Your task to perform on an android device: turn off data saver in the chrome app Image 0: 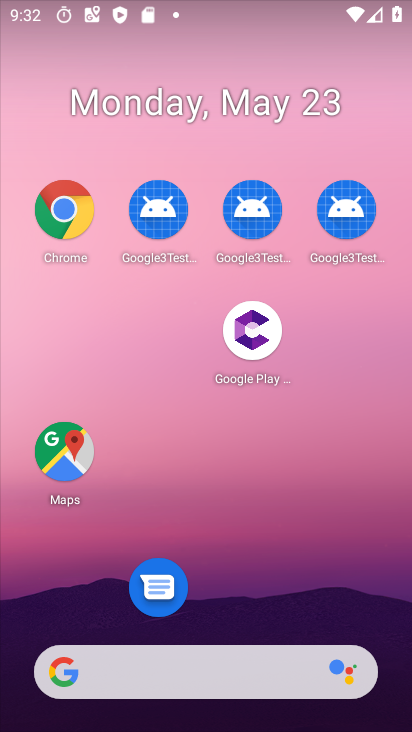
Step 0: click (75, 216)
Your task to perform on an android device: turn off data saver in the chrome app Image 1: 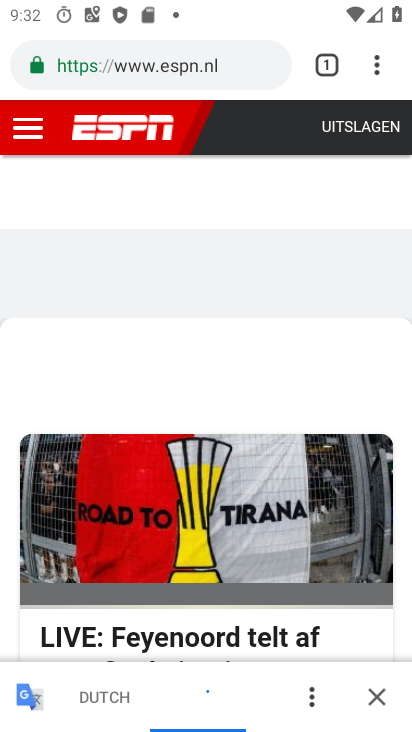
Step 1: click (389, 67)
Your task to perform on an android device: turn off data saver in the chrome app Image 2: 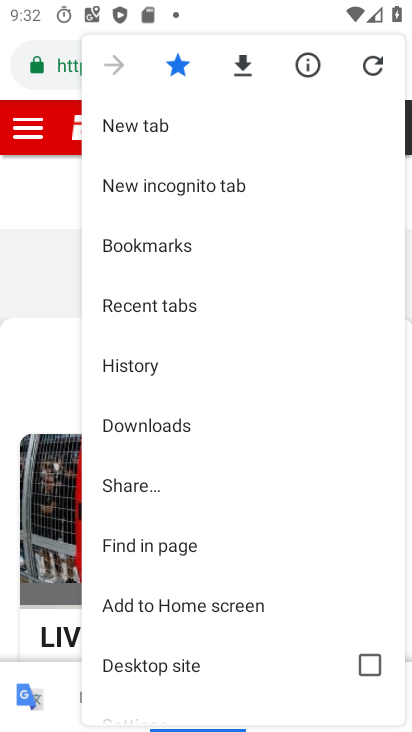
Step 2: drag from (169, 607) to (203, 261)
Your task to perform on an android device: turn off data saver in the chrome app Image 3: 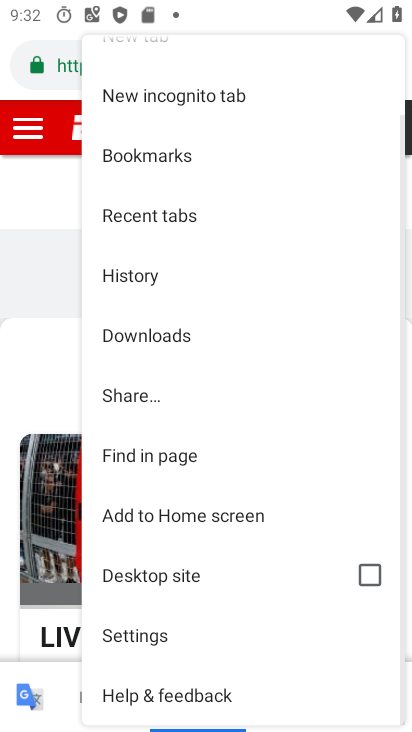
Step 3: click (152, 628)
Your task to perform on an android device: turn off data saver in the chrome app Image 4: 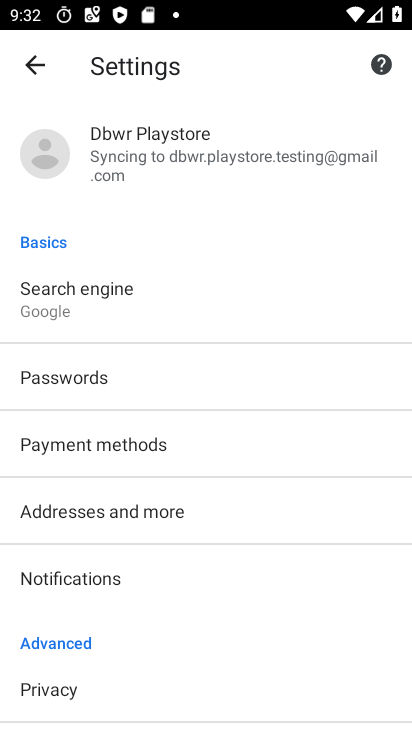
Step 4: drag from (190, 674) to (179, 155)
Your task to perform on an android device: turn off data saver in the chrome app Image 5: 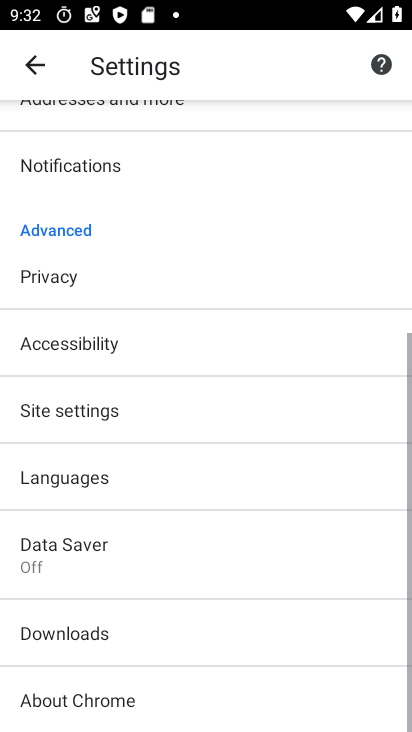
Step 5: click (99, 547)
Your task to perform on an android device: turn off data saver in the chrome app Image 6: 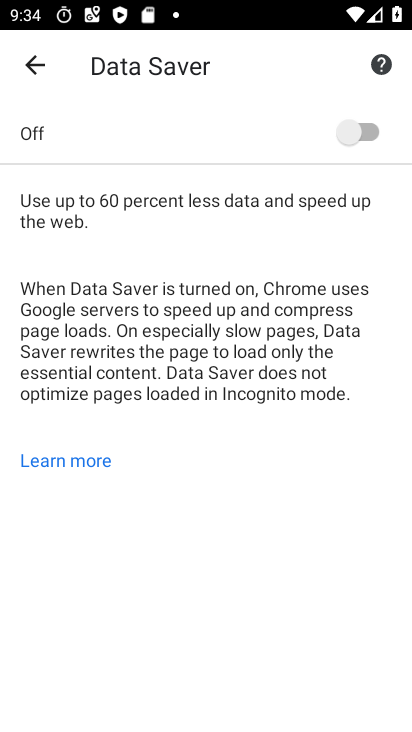
Step 6: task complete